Your task to perform on an android device: What's on my calendar today? Image 0: 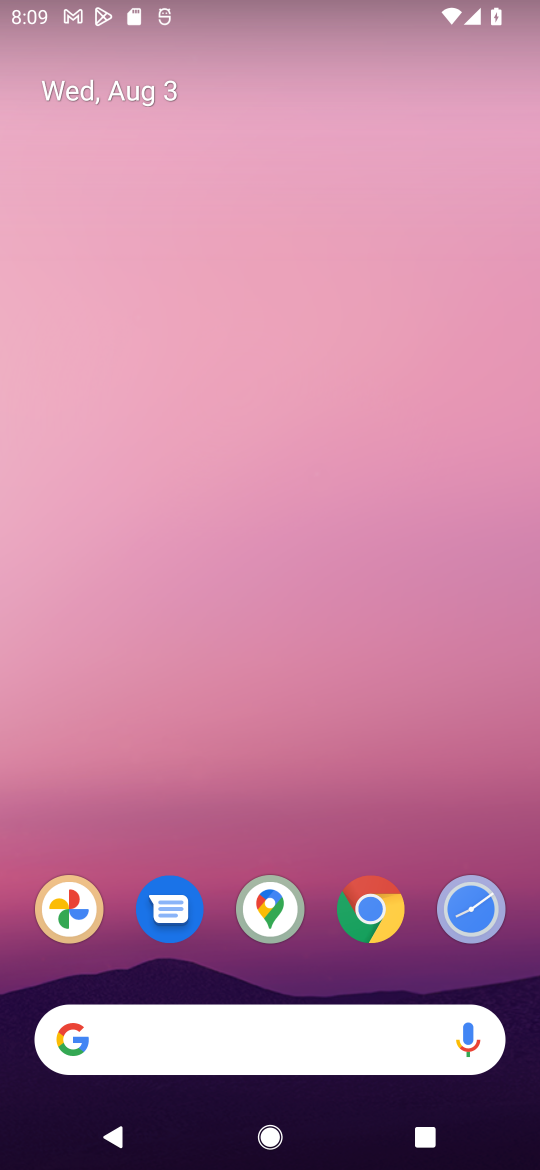
Step 0: press home button
Your task to perform on an android device: What's on my calendar today? Image 1: 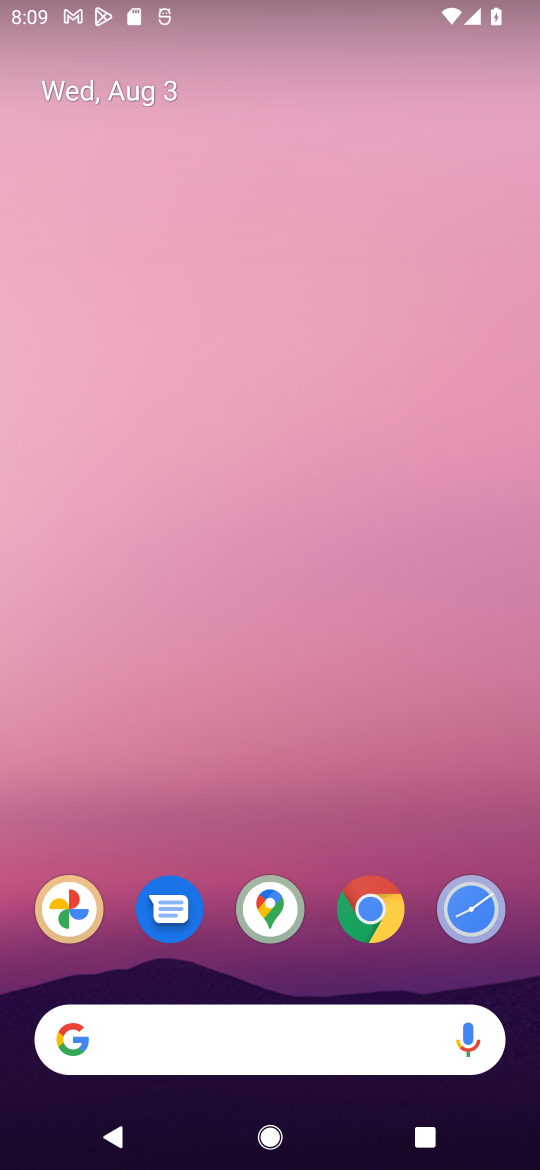
Step 1: drag from (310, 825) to (355, 180)
Your task to perform on an android device: What's on my calendar today? Image 2: 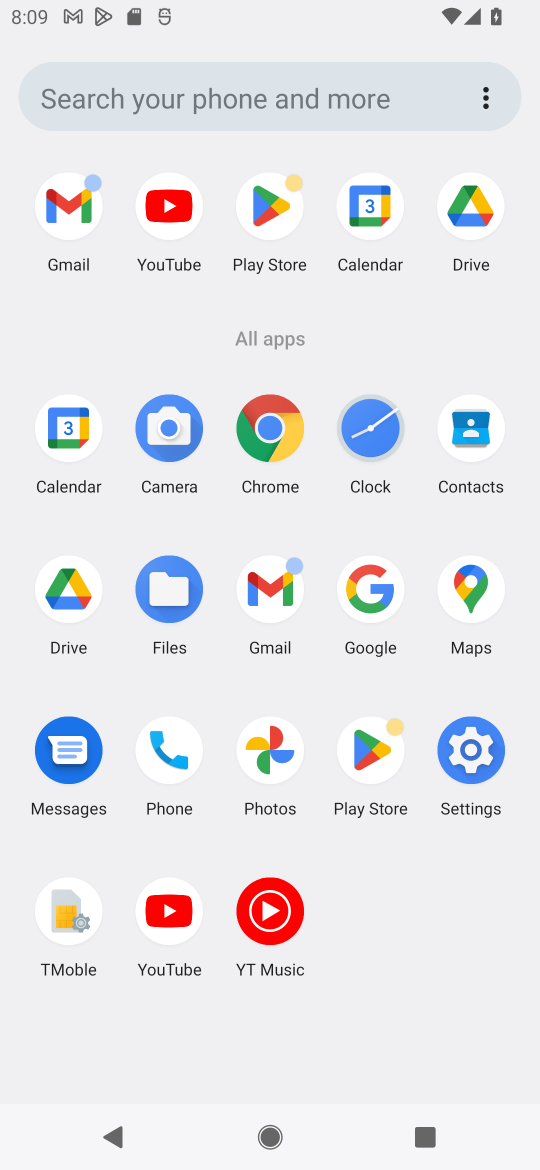
Step 2: click (67, 446)
Your task to perform on an android device: What's on my calendar today? Image 3: 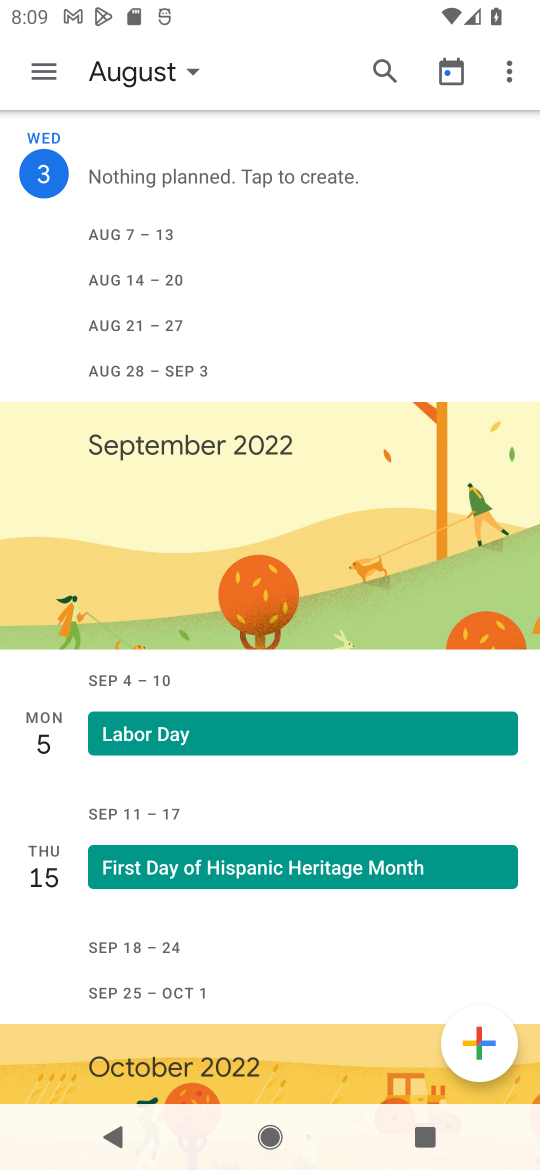
Step 3: click (187, 72)
Your task to perform on an android device: What's on my calendar today? Image 4: 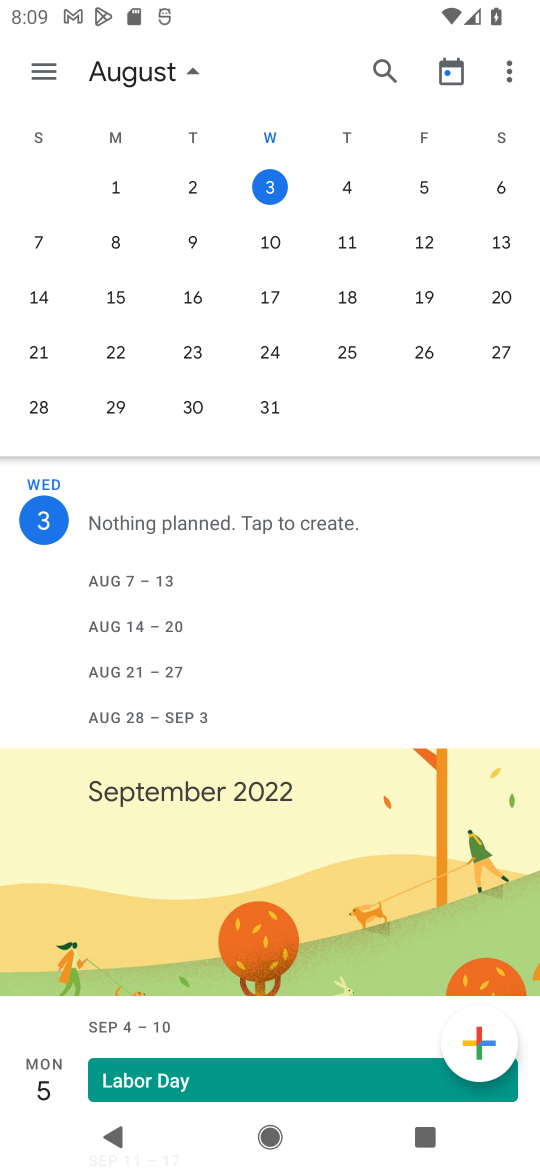
Step 4: click (274, 183)
Your task to perform on an android device: What's on my calendar today? Image 5: 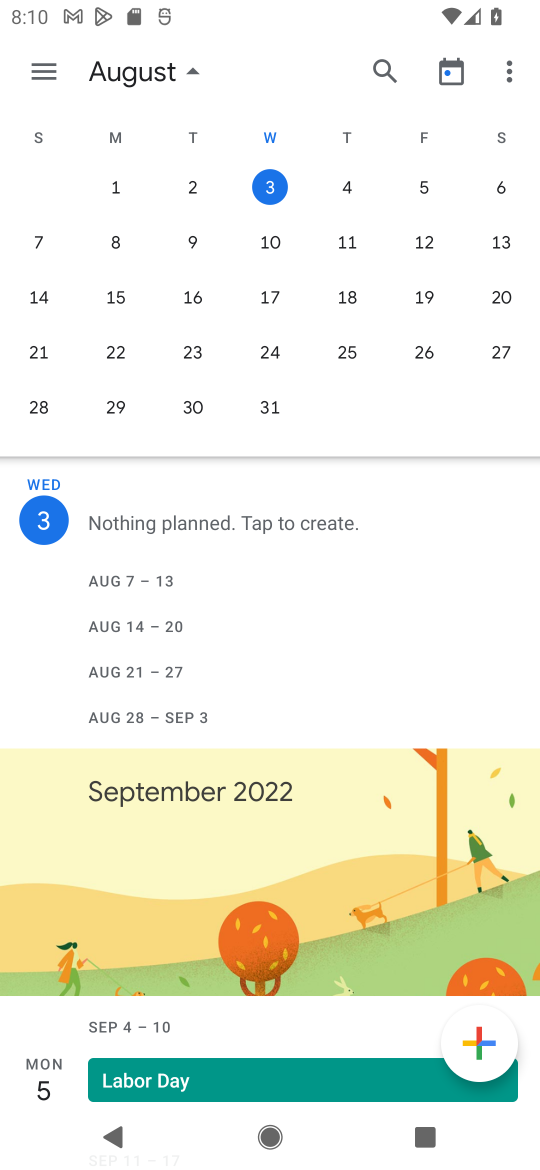
Step 5: task complete